Your task to perform on an android device: Go to accessibility settings Image 0: 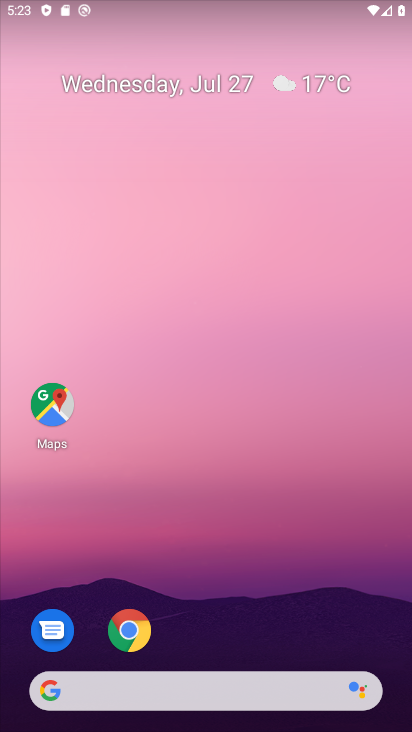
Step 0: drag from (211, 659) to (225, 87)
Your task to perform on an android device: Go to accessibility settings Image 1: 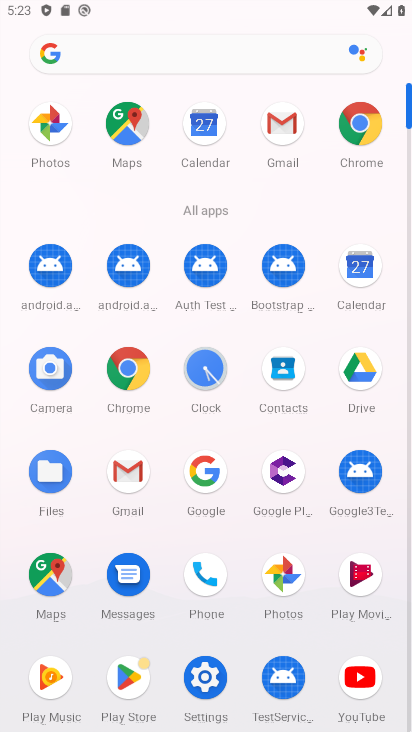
Step 1: click (199, 671)
Your task to perform on an android device: Go to accessibility settings Image 2: 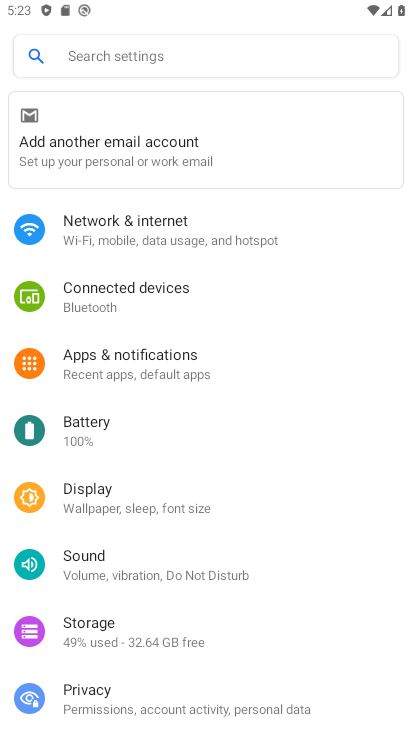
Step 2: drag from (149, 690) to (183, 125)
Your task to perform on an android device: Go to accessibility settings Image 3: 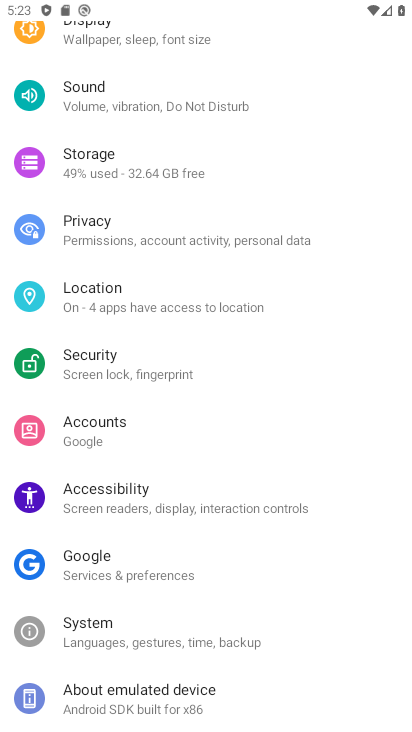
Step 3: click (156, 486)
Your task to perform on an android device: Go to accessibility settings Image 4: 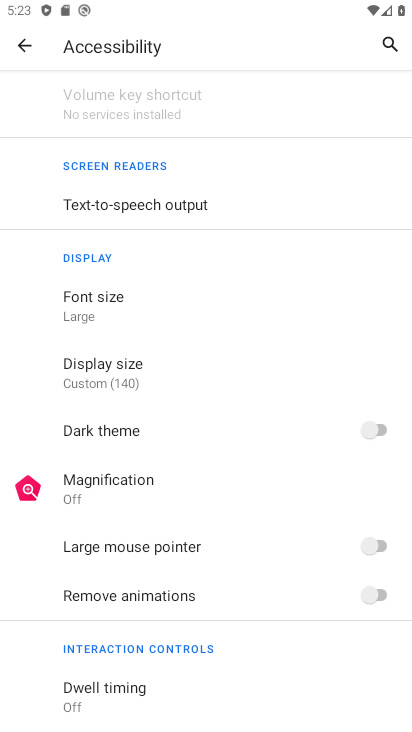
Step 4: task complete